Your task to perform on an android device: delete a single message in the gmail app Image 0: 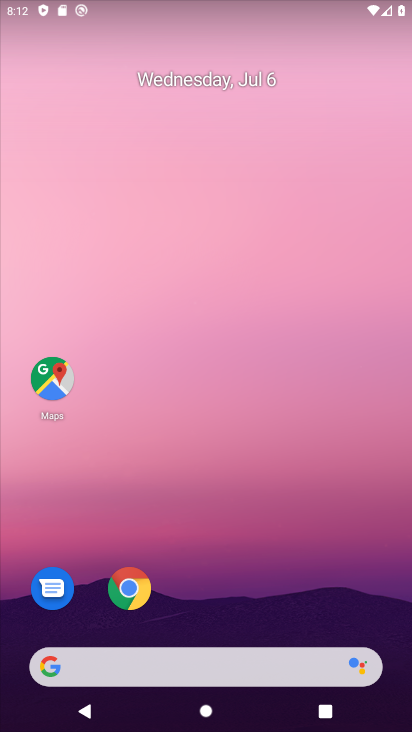
Step 0: drag from (168, 598) to (173, 294)
Your task to perform on an android device: delete a single message in the gmail app Image 1: 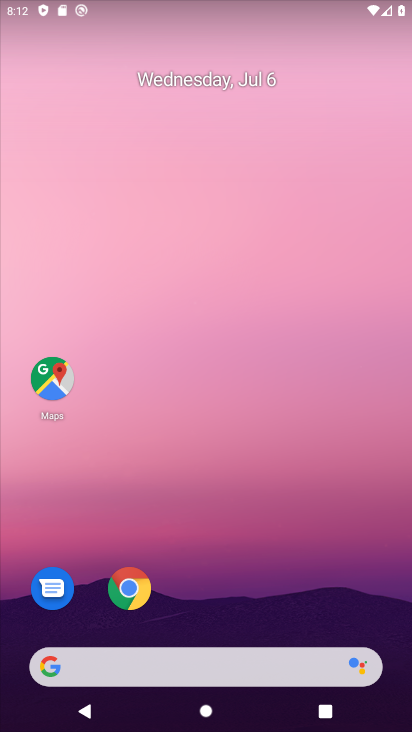
Step 1: drag from (227, 543) to (214, 130)
Your task to perform on an android device: delete a single message in the gmail app Image 2: 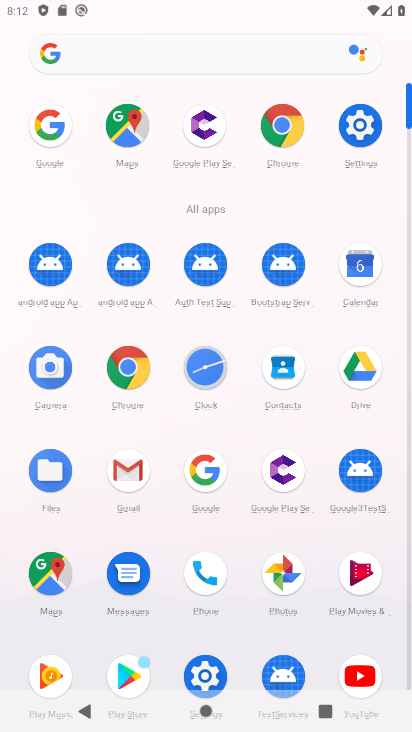
Step 2: click (131, 466)
Your task to perform on an android device: delete a single message in the gmail app Image 3: 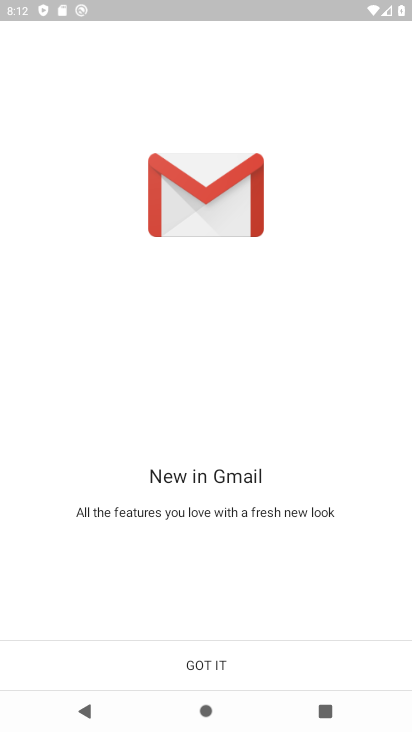
Step 3: click (212, 660)
Your task to perform on an android device: delete a single message in the gmail app Image 4: 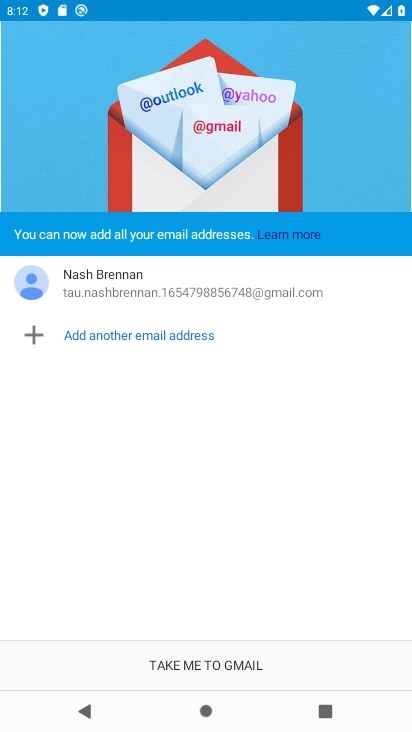
Step 4: click (212, 660)
Your task to perform on an android device: delete a single message in the gmail app Image 5: 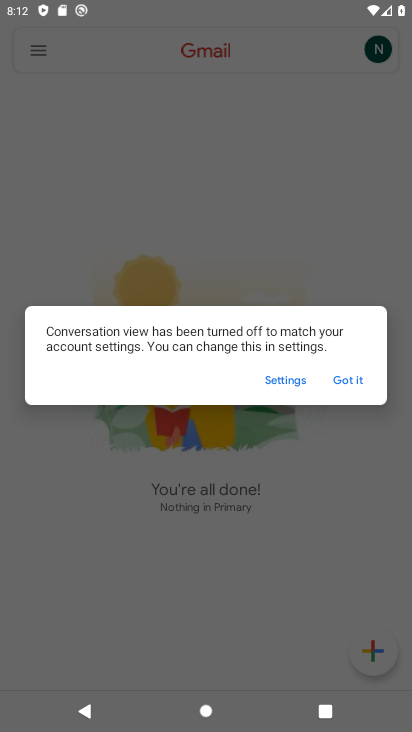
Step 5: click (341, 382)
Your task to perform on an android device: delete a single message in the gmail app Image 6: 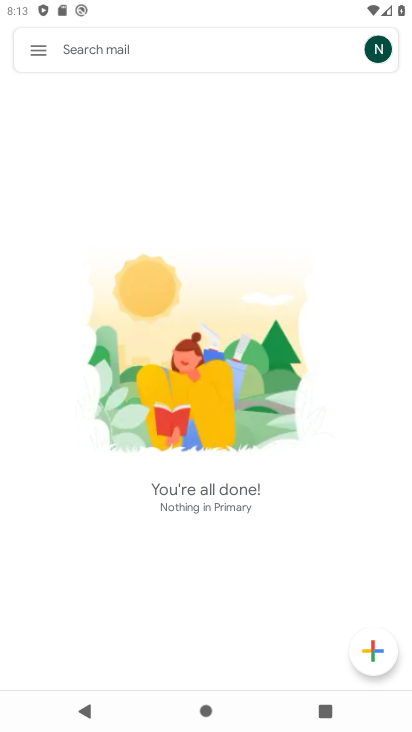
Step 6: click (39, 46)
Your task to perform on an android device: delete a single message in the gmail app Image 7: 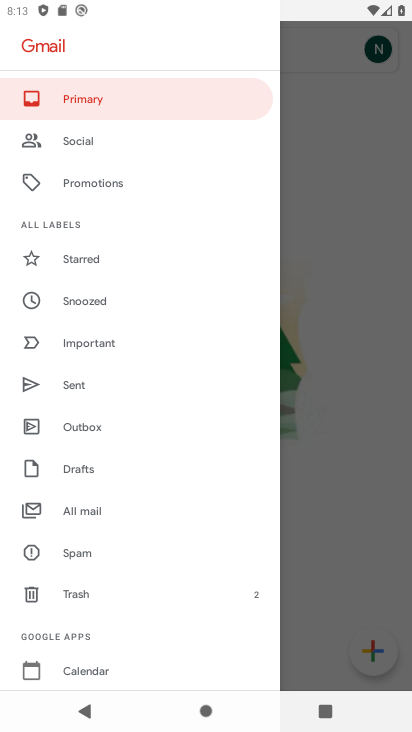
Step 7: click (103, 502)
Your task to perform on an android device: delete a single message in the gmail app Image 8: 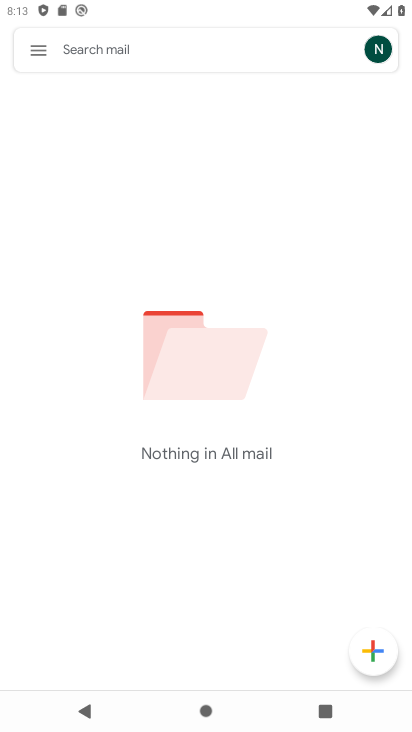
Step 8: task complete